Your task to perform on an android device: Search for seafood restaurants on Google Maps Image 0: 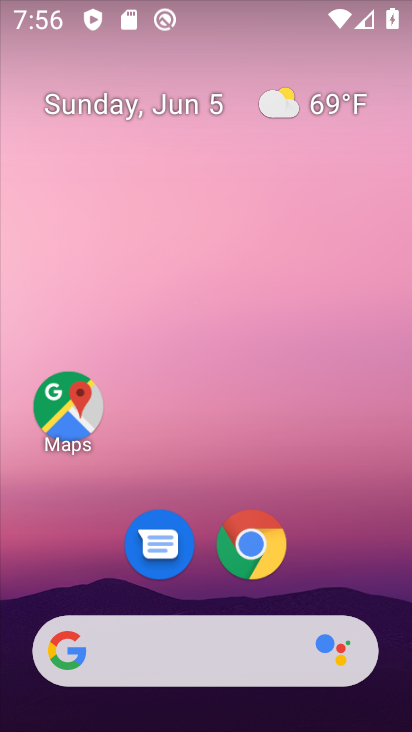
Step 0: drag from (354, 569) to (344, 220)
Your task to perform on an android device: Search for seafood restaurants on Google Maps Image 1: 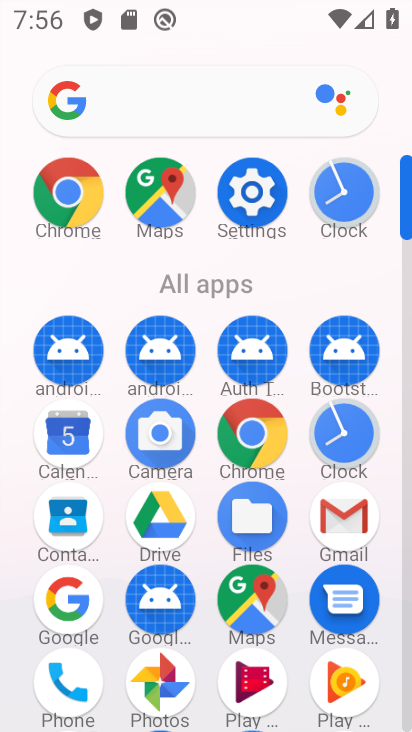
Step 1: click (269, 607)
Your task to perform on an android device: Search for seafood restaurants on Google Maps Image 2: 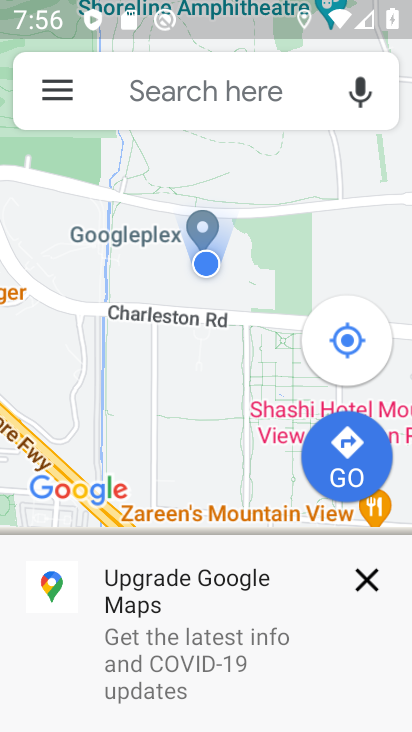
Step 2: click (239, 98)
Your task to perform on an android device: Search for seafood restaurants on Google Maps Image 3: 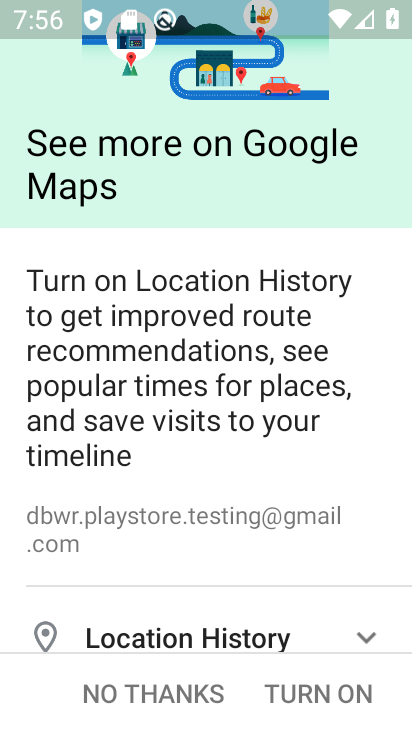
Step 3: click (195, 691)
Your task to perform on an android device: Search for seafood restaurants on Google Maps Image 4: 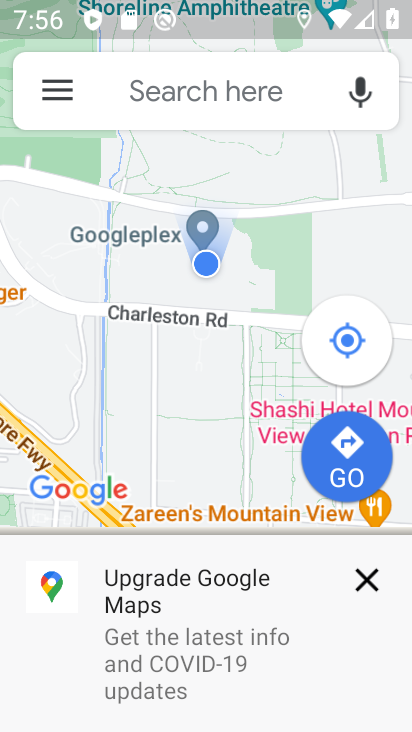
Step 4: click (218, 96)
Your task to perform on an android device: Search for seafood restaurants on Google Maps Image 5: 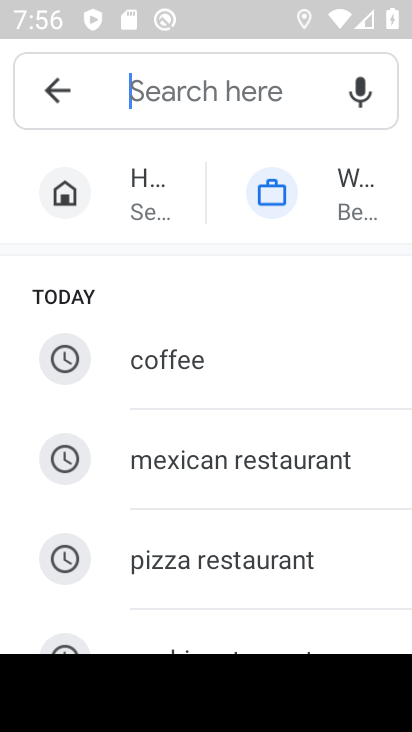
Step 5: type "seafood restaurants"
Your task to perform on an android device: Search for seafood restaurants on Google Maps Image 6: 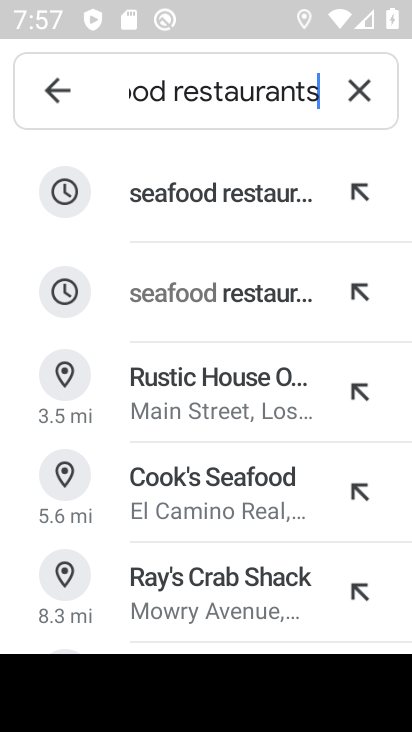
Step 6: click (299, 217)
Your task to perform on an android device: Search for seafood restaurants on Google Maps Image 7: 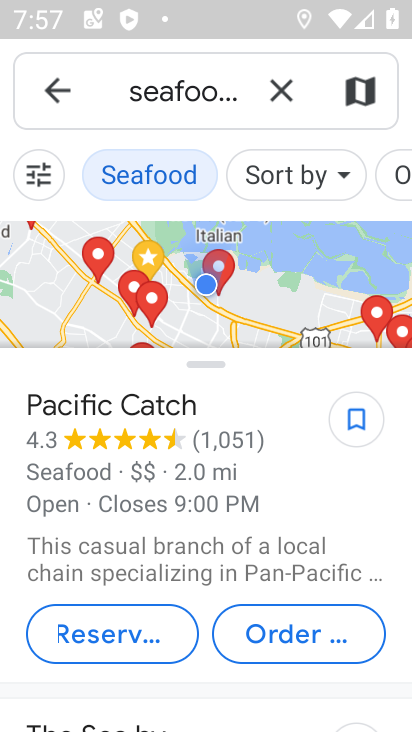
Step 7: task complete